Your task to perform on an android device: open wifi settings Image 0: 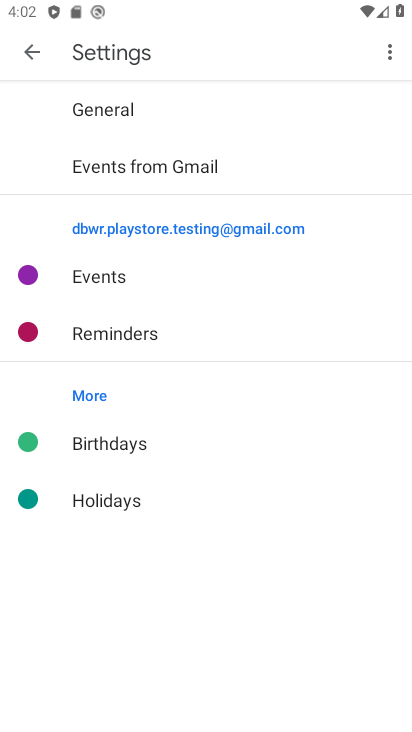
Step 0: press home button
Your task to perform on an android device: open wifi settings Image 1: 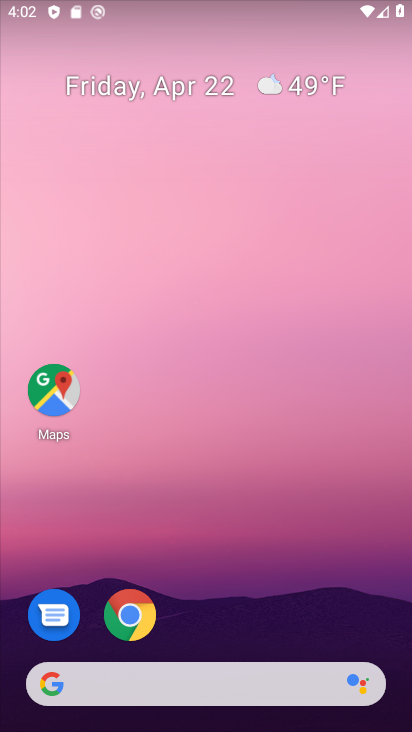
Step 1: drag from (202, 559) to (202, 184)
Your task to perform on an android device: open wifi settings Image 2: 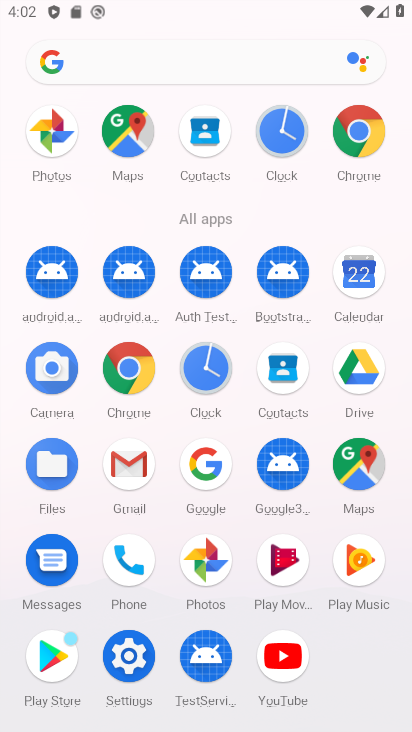
Step 2: click (143, 639)
Your task to perform on an android device: open wifi settings Image 3: 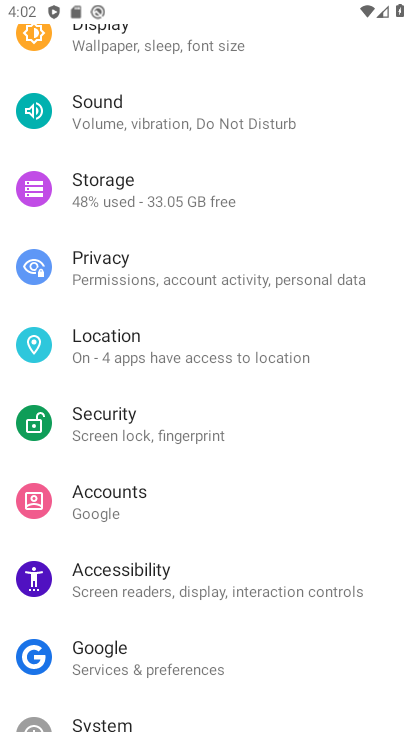
Step 3: drag from (192, 153) to (144, 658)
Your task to perform on an android device: open wifi settings Image 4: 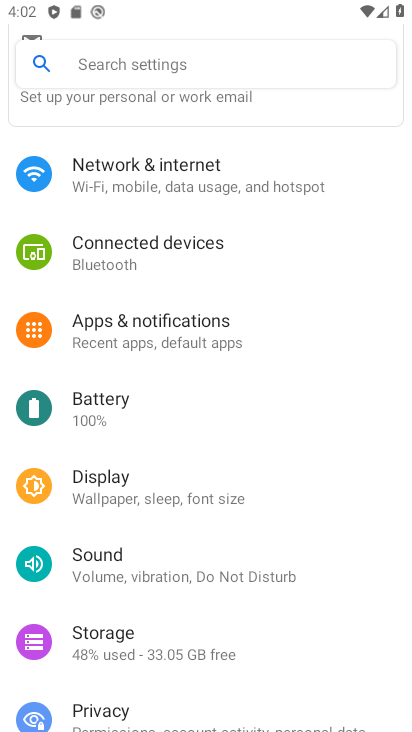
Step 4: drag from (151, 216) to (151, 378)
Your task to perform on an android device: open wifi settings Image 5: 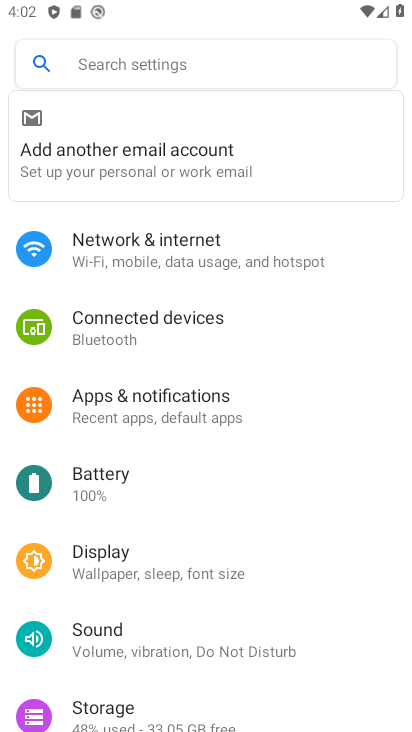
Step 5: click (115, 254)
Your task to perform on an android device: open wifi settings Image 6: 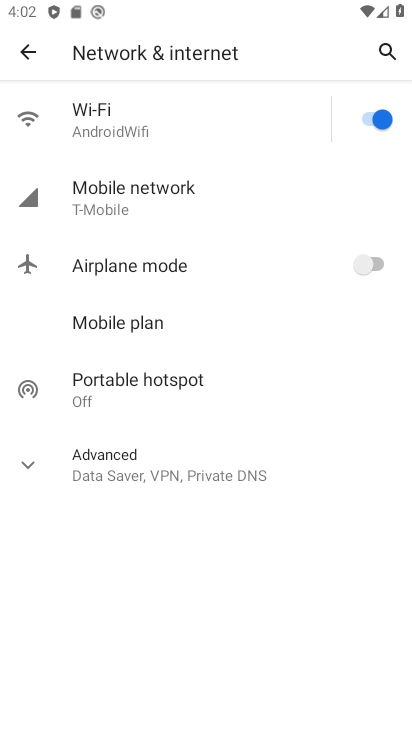
Step 6: click (113, 130)
Your task to perform on an android device: open wifi settings Image 7: 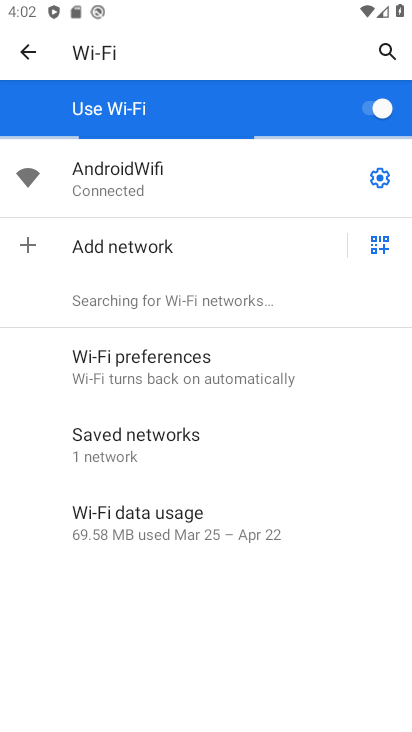
Step 7: task complete